Your task to perform on an android device: see tabs open on other devices in the chrome app Image 0: 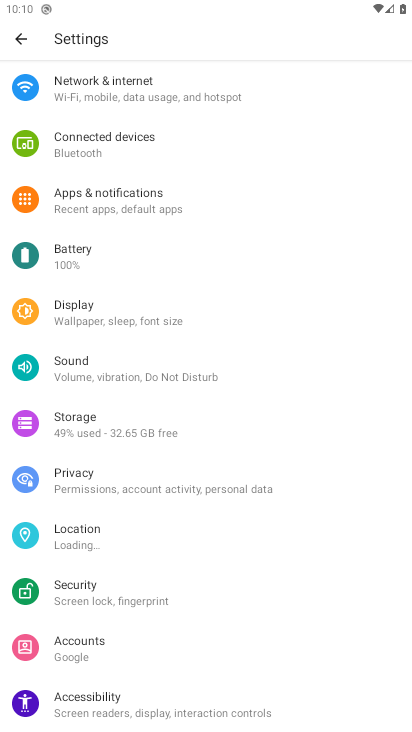
Step 0: press home button
Your task to perform on an android device: see tabs open on other devices in the chrome app Image 1: 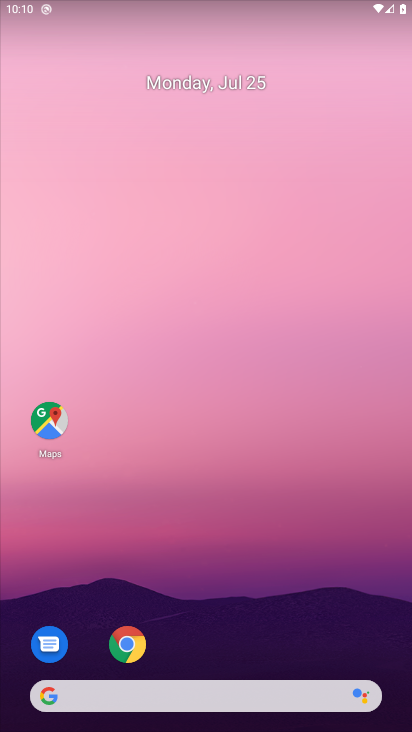
Step 1: click (109, 651)
Your task to perform on an android device: see tabs open on other devices in the chrome app Image 2: 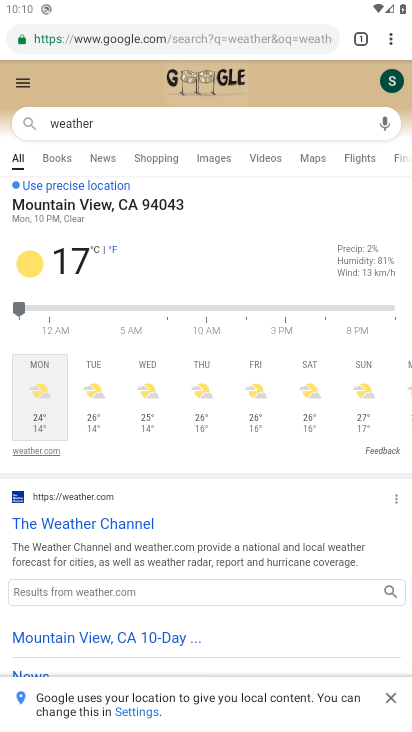
Step 2: click (389, 39)
Your task to perform on an android device: see tabs open on other devices in the chrome app Image 3: 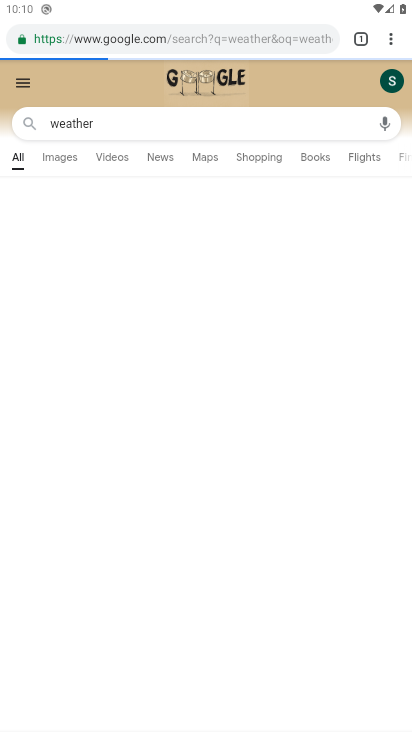
Step 3: drag from (389, 39) to (268, 424)
Your task to perform on an android device: see tabs open on other devices in the chrome app Image 4: 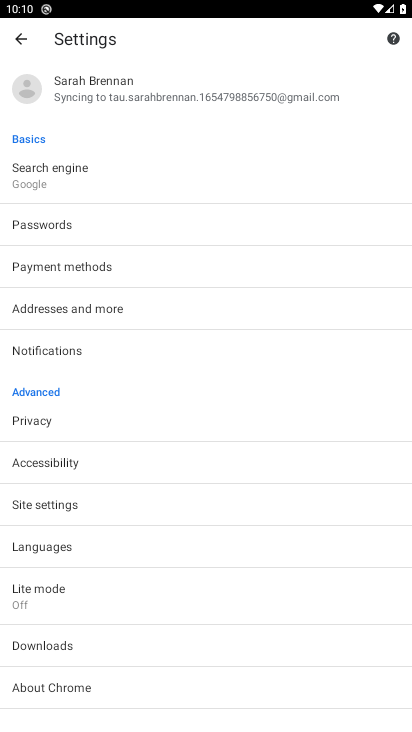
Step 4: press home button
Your task to perform on an android device: see tabs open on other devices in the chrome app Image 5: 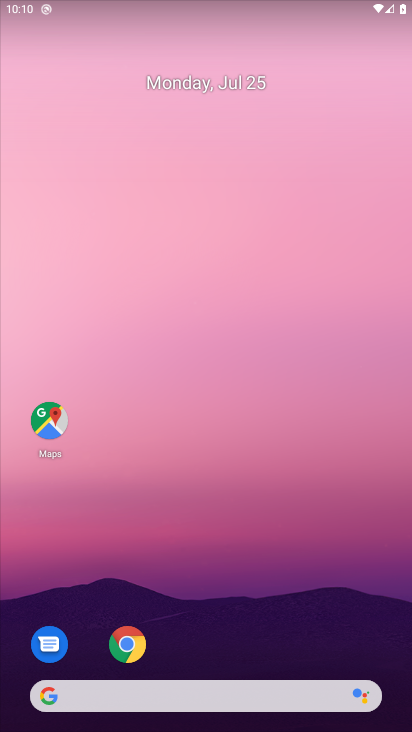
Step 5: drag from (316, 628) to (398, 66)
Your task to perform on an android device: see tabs open on other devices in the chrome app Image 6: 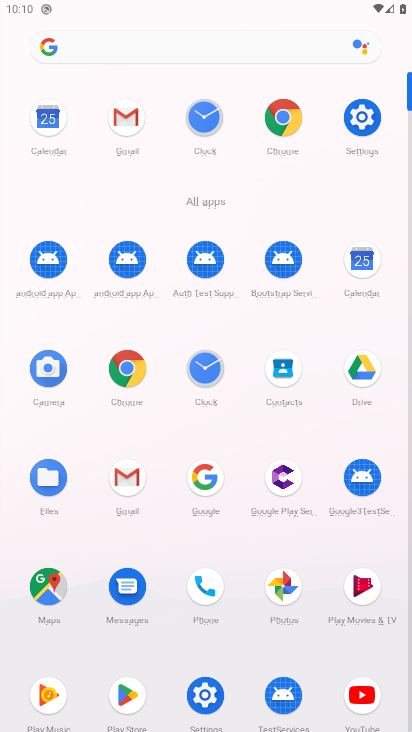
Step 6: click (287, 108)
Your task to perform on an android device: see tabs open on other devices in the chrome app Image 7: 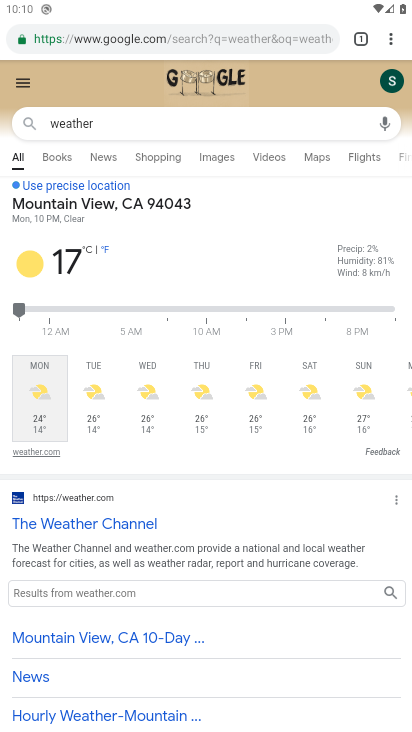
Step 7: task complete